Your task to perform on an android device: turn on sleep mode Image 0: 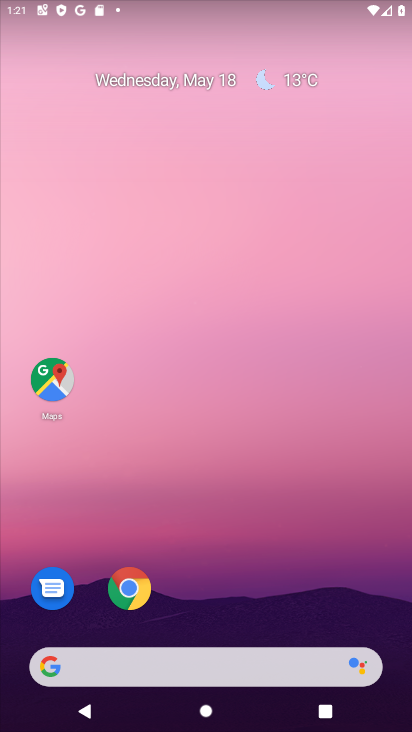
Step 0: drag from (177, 603) to (194, 177)
Your task to perform on an android device: turn on sleep mode Image 1: 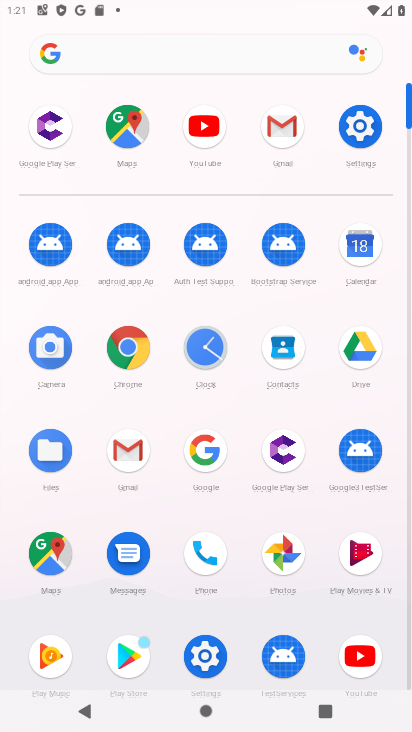
Step 1: click (360, 130)
Your task to perform on an android device: turn on sleep mode Image 2: 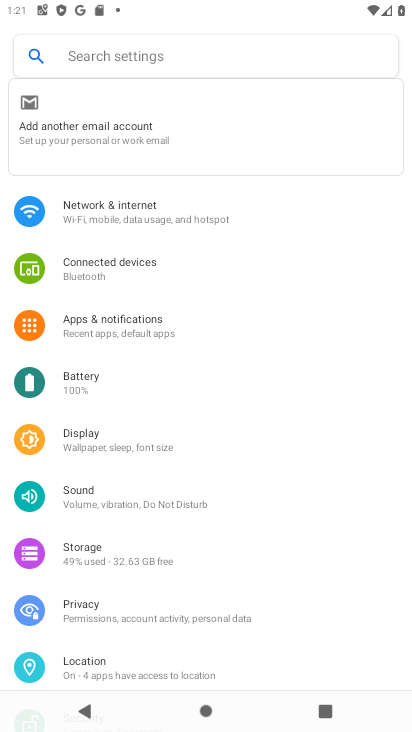
Step 2: click (115, 438)
Your task to perform on an android device: turn on sleep mode Image 3: 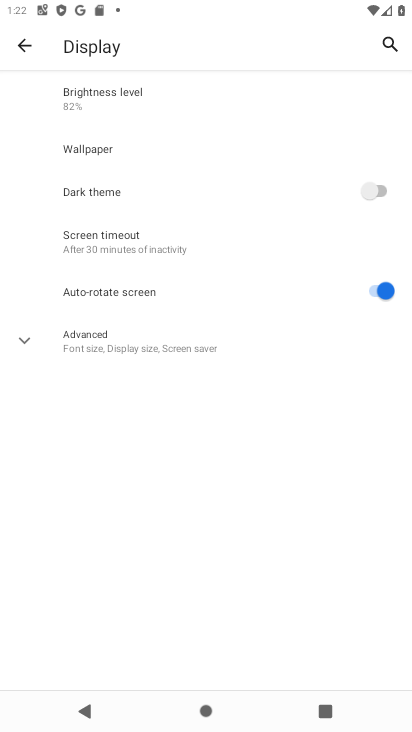
Step 3: click (172, 244)
Your task to perform on an android device: turn on sleep mode Image 4: 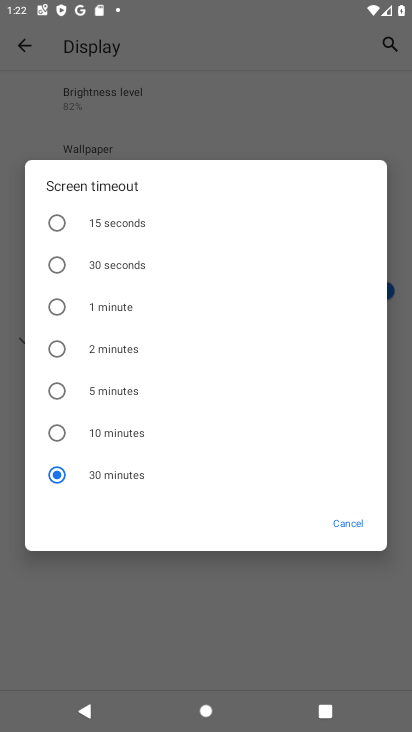
Step 4: task complete